Your task to perform on an android device: check out phone information Image 0: 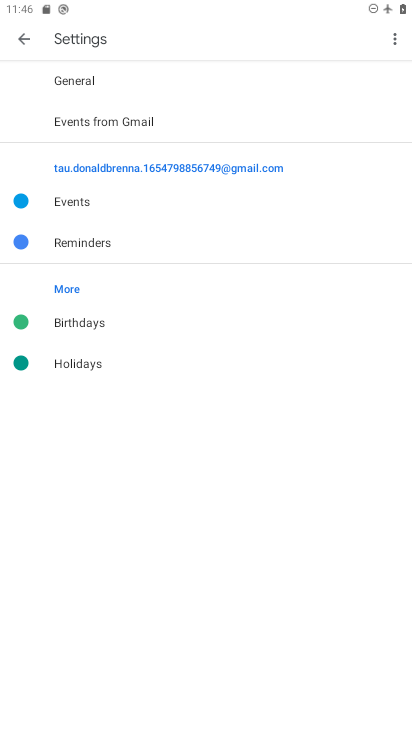
Step 0: press home button
Your task to perform on an android device: check out phone information Image 1: 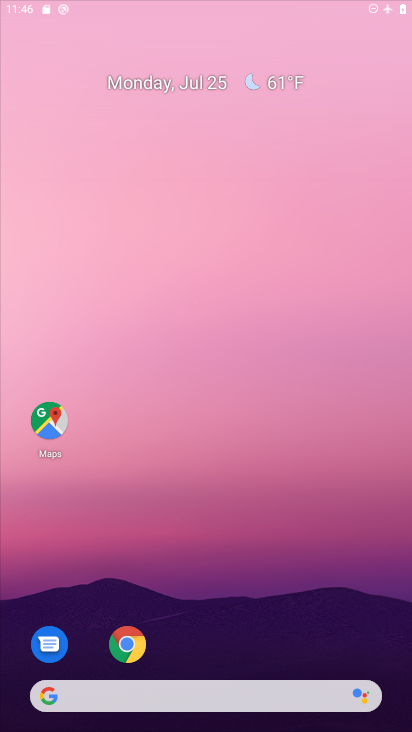
Step 1: drag from (216, 539) to (117, 108)
Your task to perform on an android device: check out phone information Image 2: 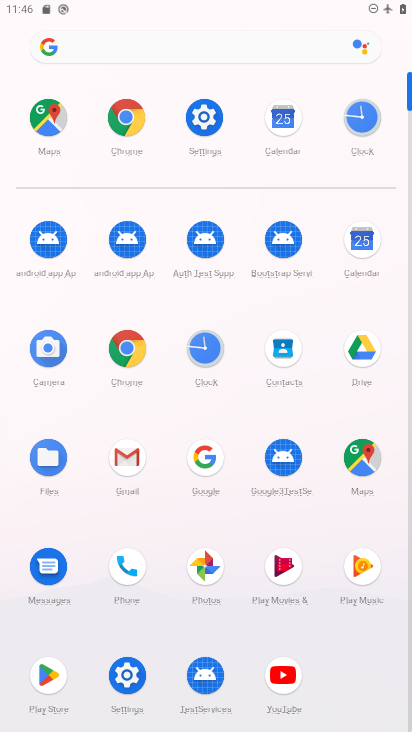
Step 2: click (208, 112)
Your task to perform on an android device: check out phone information Image 3: 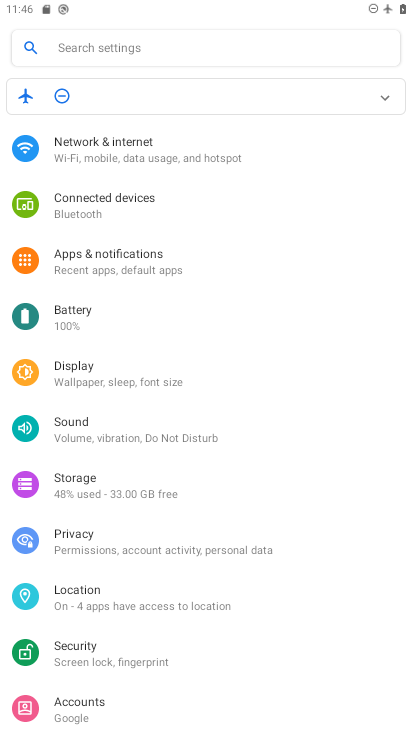
Step 3: drag from (238, 662) to (145, 150)
Your task to perform on an android device: check out phone information Image 4: 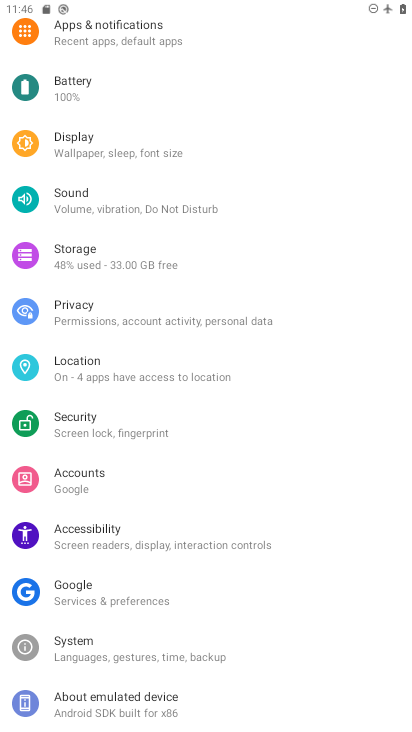
Step 4: click (155, 709)
Your task to perform on an android device: check out phone information Image 5: 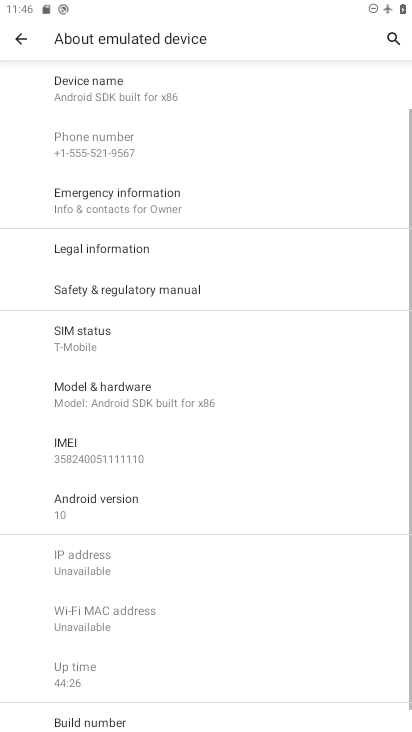
Step 5: task complete